Your task to perform on an android device: turn pop-ups on in chrome Image 0: 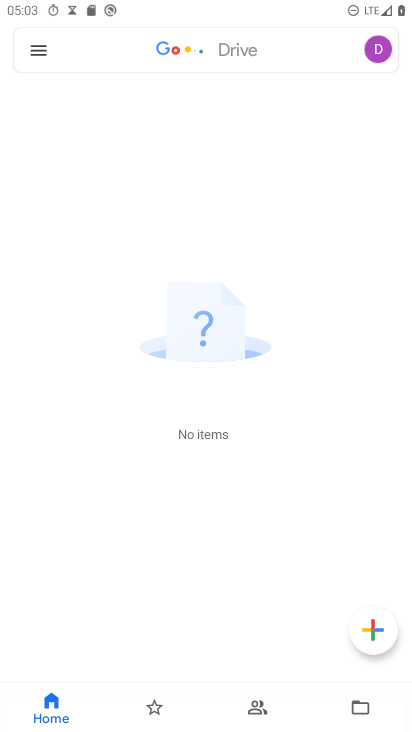
Step 0: drag from (333, 687) to (362, 185)
Your task to perform on an android device: turn pop-ups on in chrome Image 1: 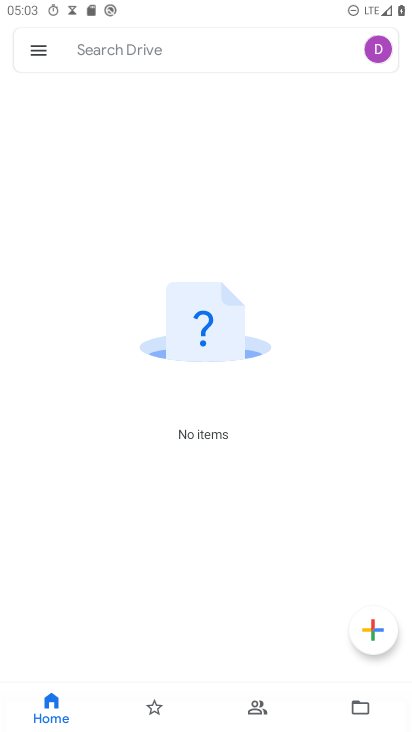
Step 1: press home button
Your task to perform on an android device: turn pop-ups on in chrome Image 2: 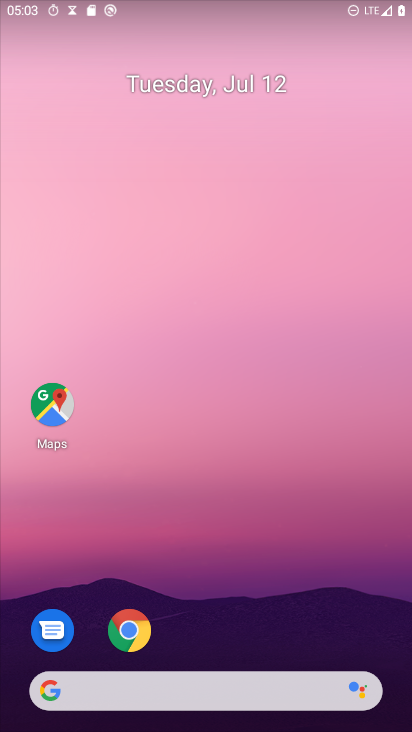
Step 2: drag from (313, 389) to (329, 56)
Your task to perform on an android device: turn pop-ups on in chrome Image 3: 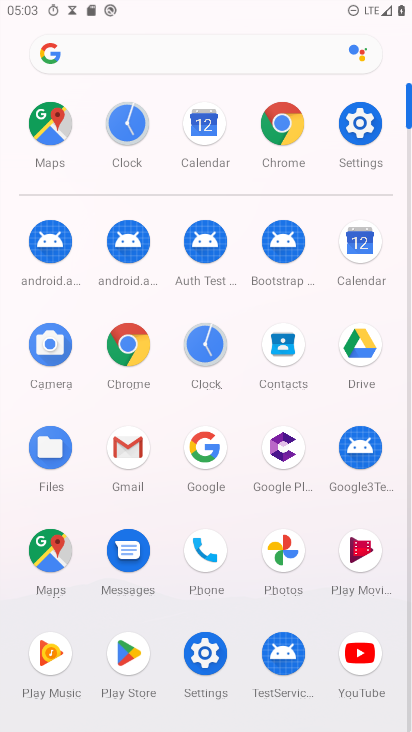
Step 3: click (135, 344)
Your task to perform on an android device: turn pop-ups on in chrome Image 4: 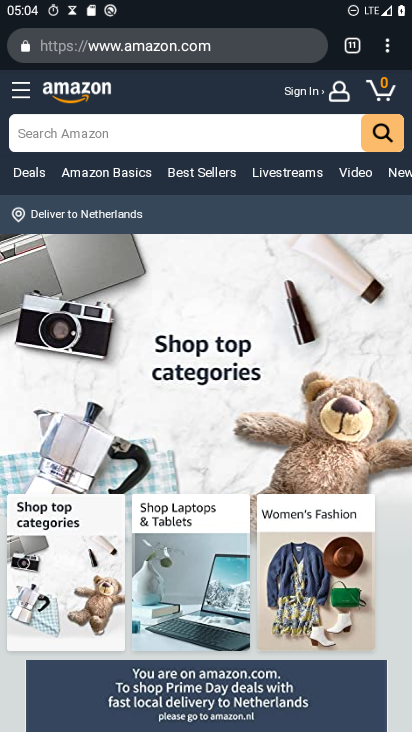
Step 4: drag from (390, 50) to (237, 553)
Your task to perform on an android device: turn pop-ups on in chrome Image 5: 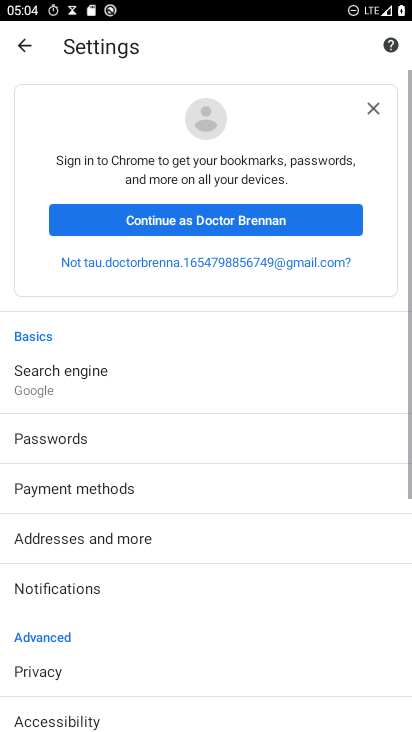
Step 5: drag from (127, 575) to (174, 191)
Your task to perform on an android device: turn pop-ups on in chrome Image 6: 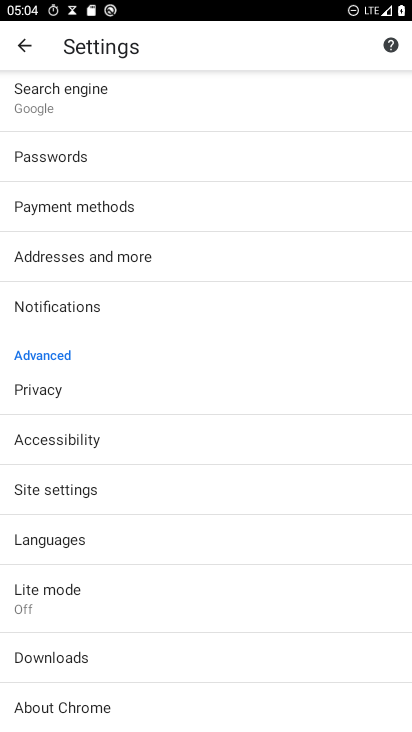
Step 6: click (67, 493)
Your task to perform on an android device: turn pop-ups on in chrome Image 7: 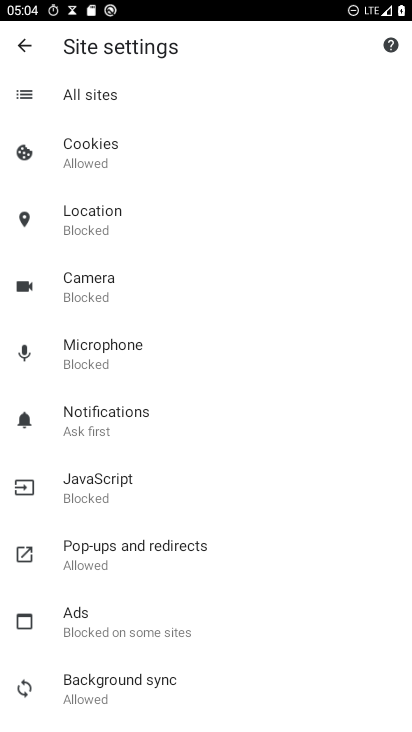
Step 7: click (71, 552)
Your task to perform on an android device: turn pop-ups on in chrome Image 8: 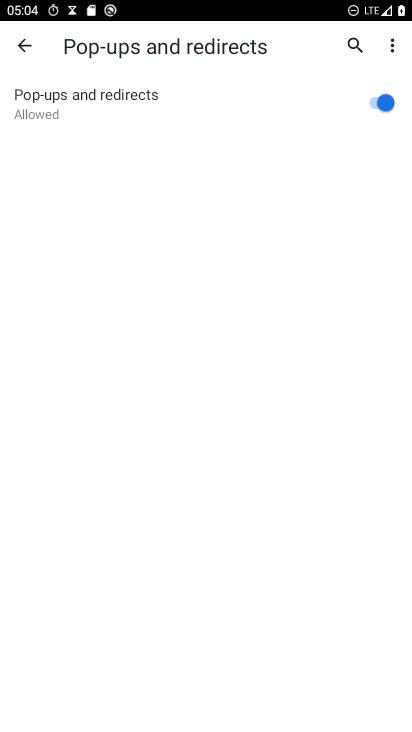
Step 8: task complete